Your task to perform on an android device: Show me popular games on the Play Store Image 0: 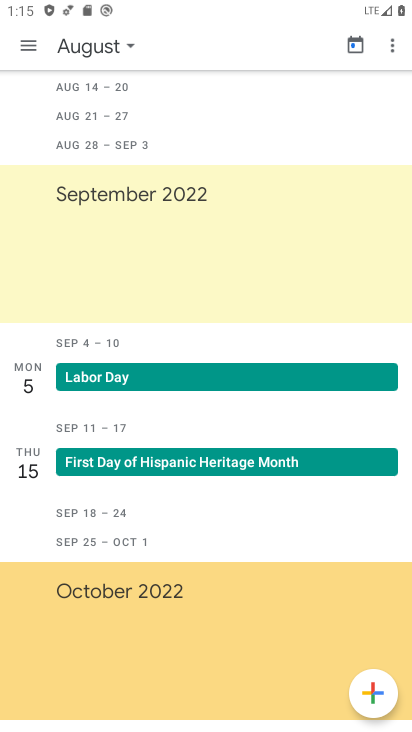
Step 0: press home button
Your task to perform on an android device: Show me popular games on the Play Store Image 1: 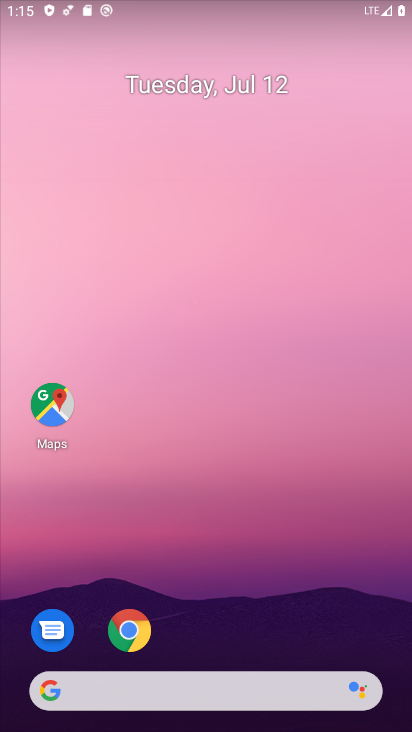
Step 1: drag from (326, 639) to (264, 88)
Your task to perform on an android device: Show me popular games on the Play Store Image 2: 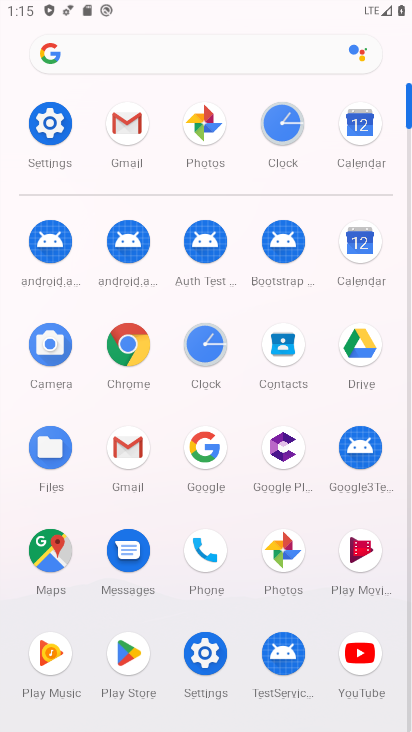
Step 2: click (134, 654)
Your task to perform on an android device: Show me popular games on the Play Store Image 3: 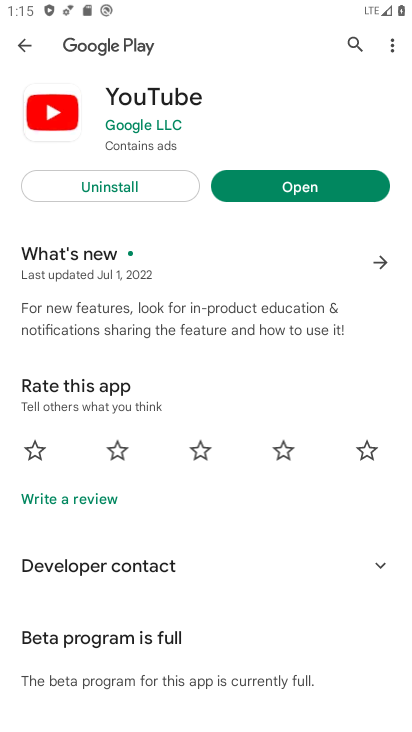
Step 3: press back button
Your task to perform on an android device: Show me popular games on the Play Store Image 4: 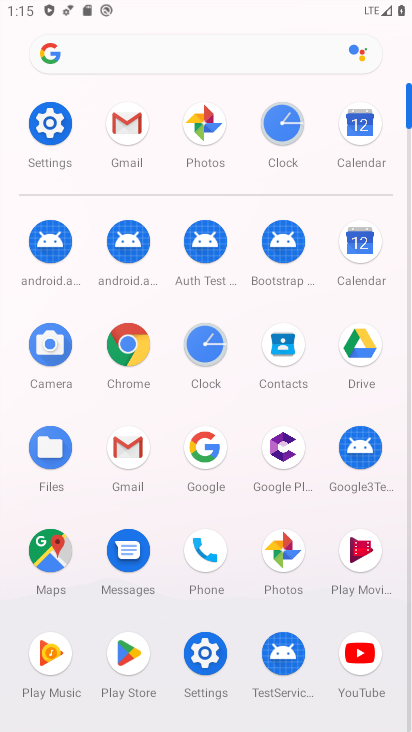
Step 4: click (127, 651)
Your task to perform on an android device: Show me popular games on the Play Store Image 5: 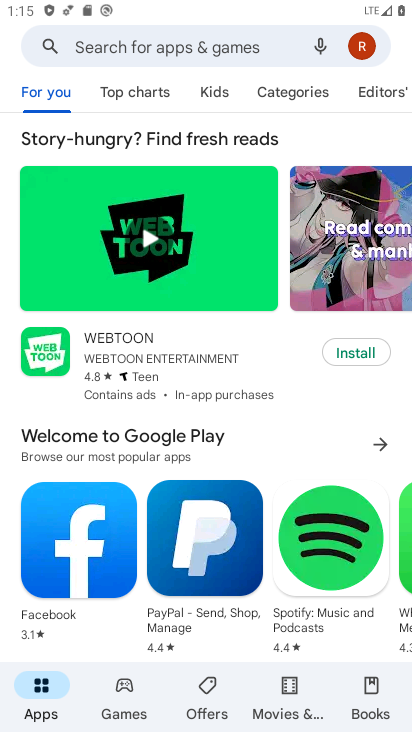
Step 5: click (134, 691)
Your task to perform on an android device: Show me popular games on the Play Store Image 6: 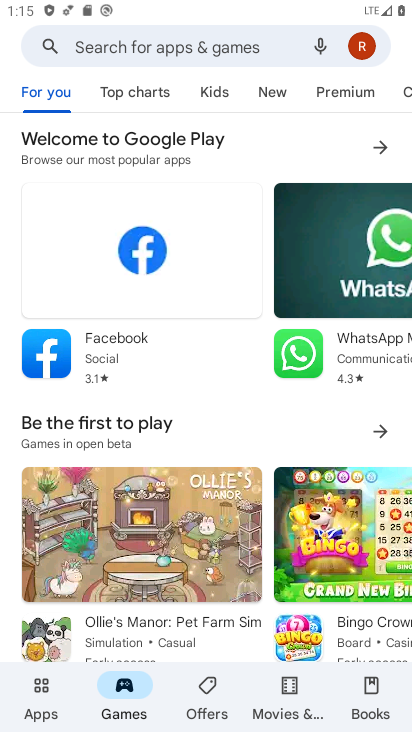
Step 6: drag from (275, 449) to (201, 96)
Your task to perform on an android device: Show me popular games on the Play Store Image 7: 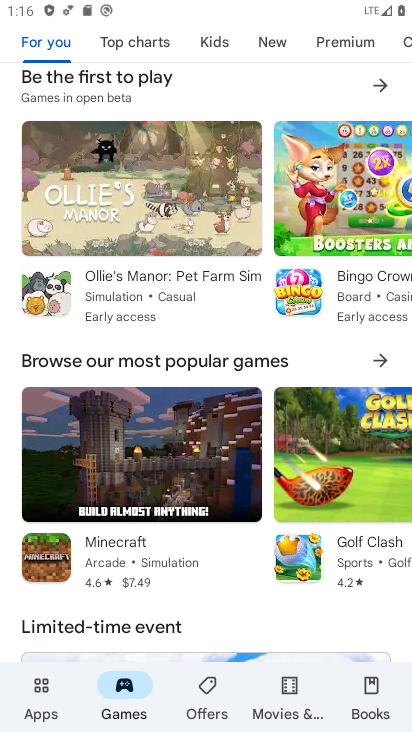
Step 7: click (374, 358)
Your task to perform on an android device: Show me popular games on the Play Store Image 8: 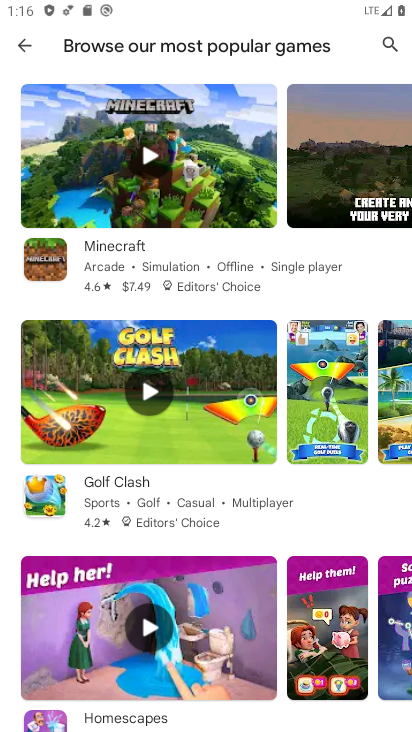
Step 8: task complete